Your task to perform on an android device: turn on priority inbox in the gmail app Image 0: 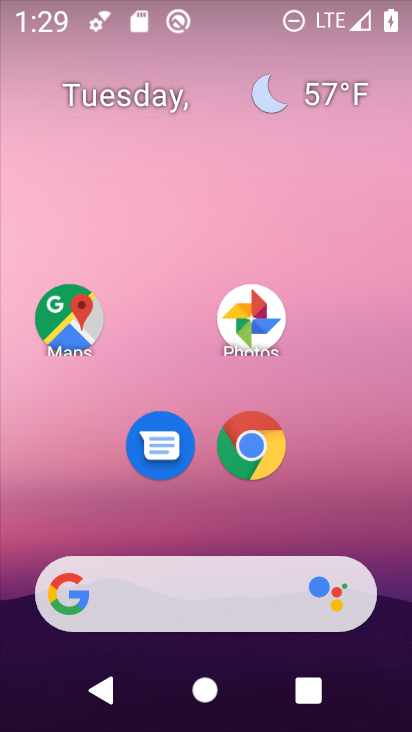
Step 0: drag from (391, 519) to (383, 216)
Your task to perform on an android device: turn on priority inbox in the gmail app Image 1: 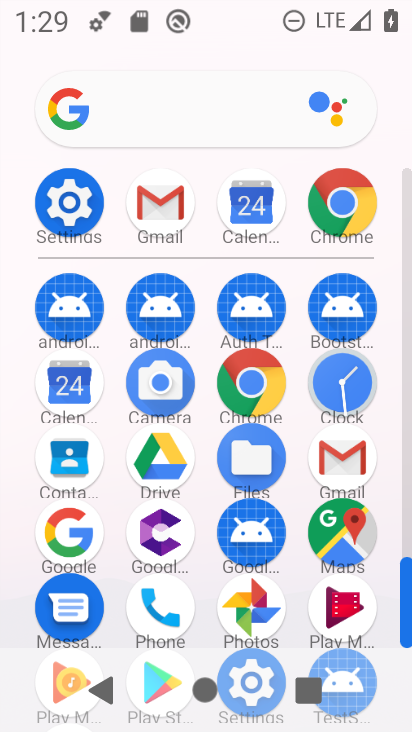
Step 1: click (362, 460)
Your task to perform on an android device: turn on priority inbox in the gmail app Image 2: 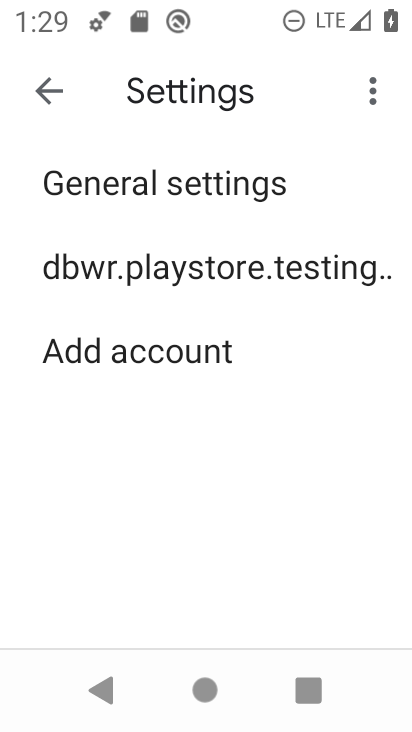
Step 2: click (336, 284)
Your task to perform on an android device: turn on priority inbox in the gmail app Image 3: 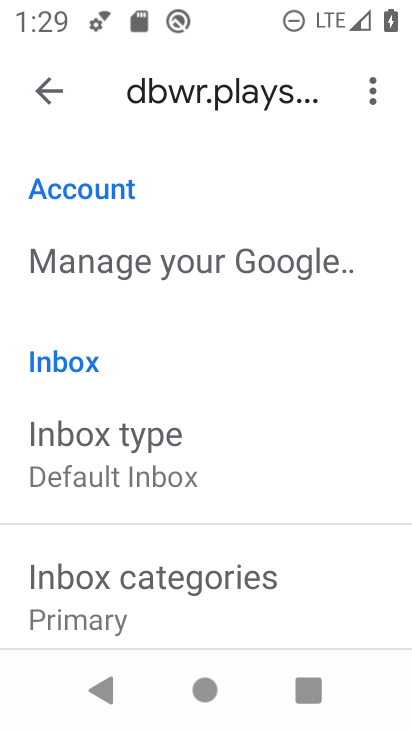
Step 3: drag from (363, 509) to (352, 423)
Your task to perform on an android device: turn on priority inbox in the gmail app Image 4: 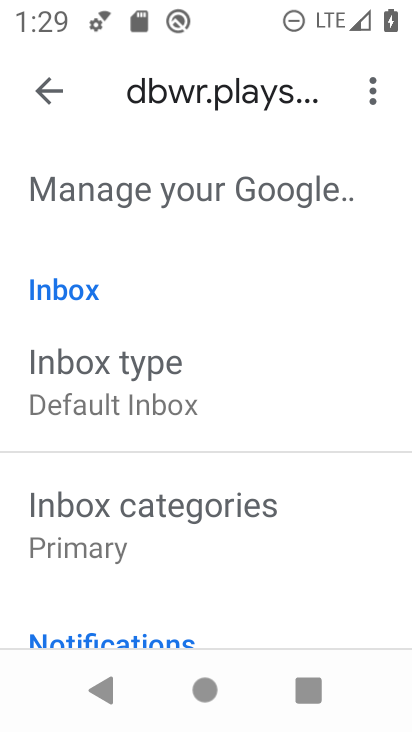
Step 4: drag from (344, 569) to (350, 476)
Your task to perform on an android device: turn on priority inbox in the gmail app Image 5: 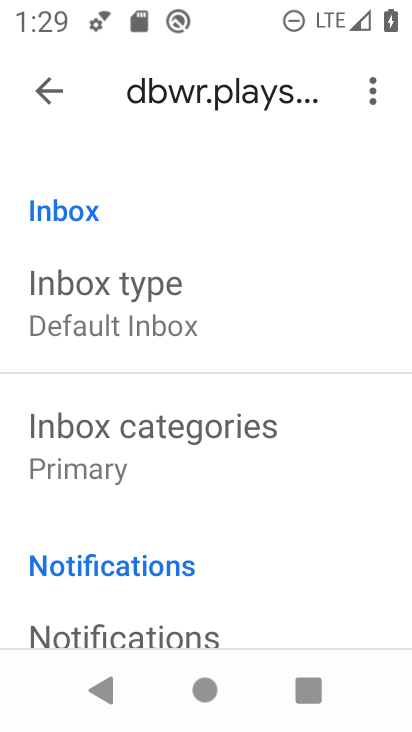
Step 5: drag from (348, 554) to (363, 426)
Your task to perform on an android device: turn on priority inbox in the gmail app Image 6: 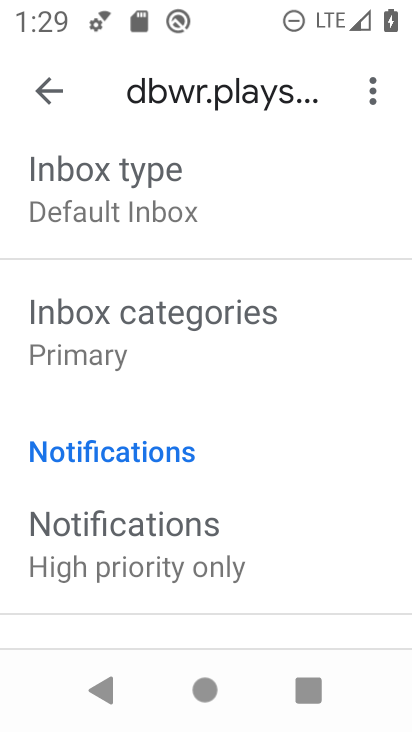
Step 6: drag from (368, 533) to (352, 415)
Your task to perform on an android device: turn on priority inbox in the gmail app Image 7: 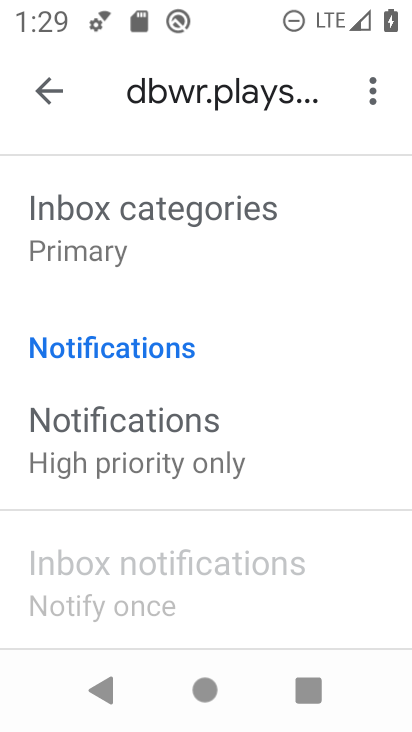
Step 7: drag from (340, 530) to (341, 401)
Your task to perform on an android device: turn on priority inbox in the gmail app Image 8: 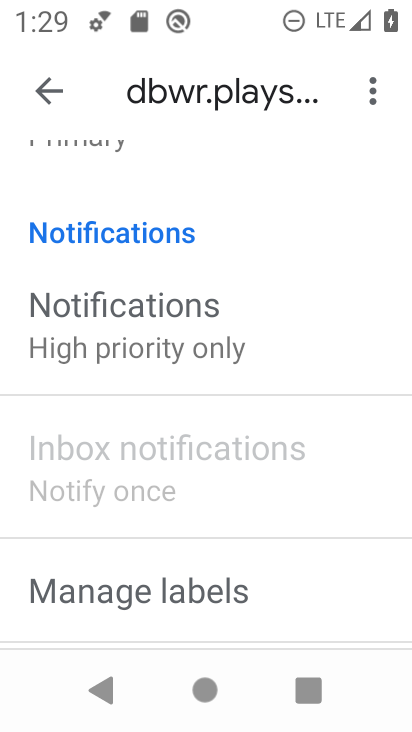
Step 8: drag from (326, 531) to (323, 393)
Your task to perform on an android device: turn on priority inbox in the gmail app Image 9: 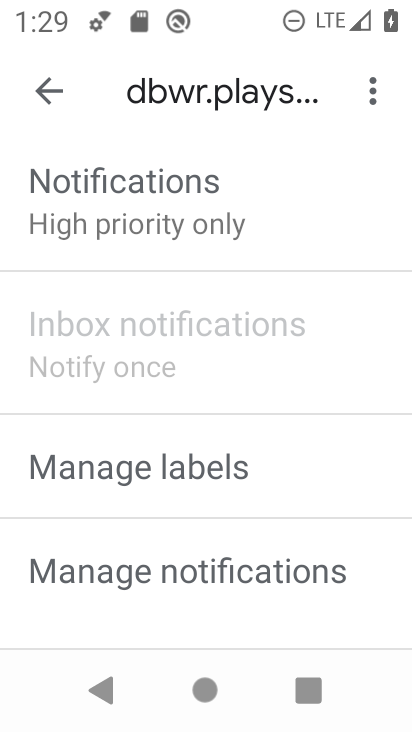
Step 9: drag from (371, 230) to (352, 343)
Your task to perform on an android device: turn on priority inbox in the gmail app Image 10: 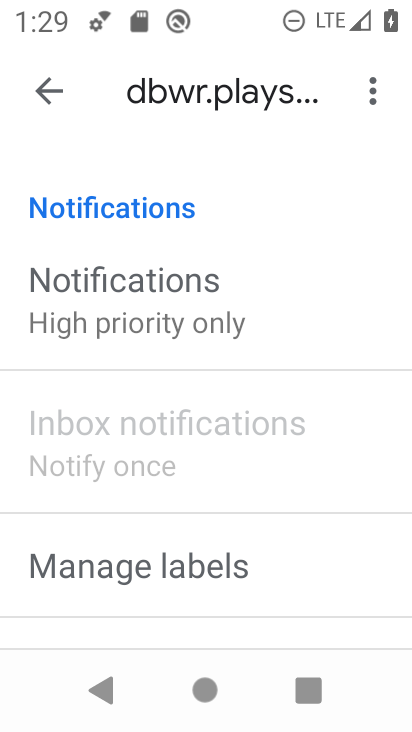
Step 10: drag from (343, 259) to (352, 371)
Your task to perform on an android device: turn on priority inbox in the gmail app Image 11: 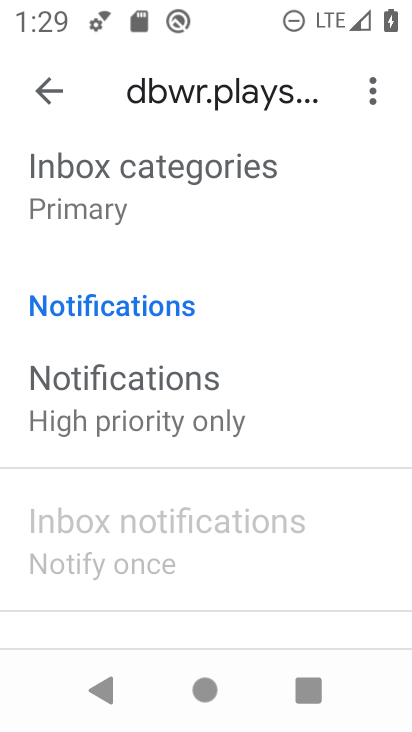
Step 11: drag from (326, 256) to (321, 370)
Your task to perform on an android device: turn on priority inbox in the gmail app Image 12: 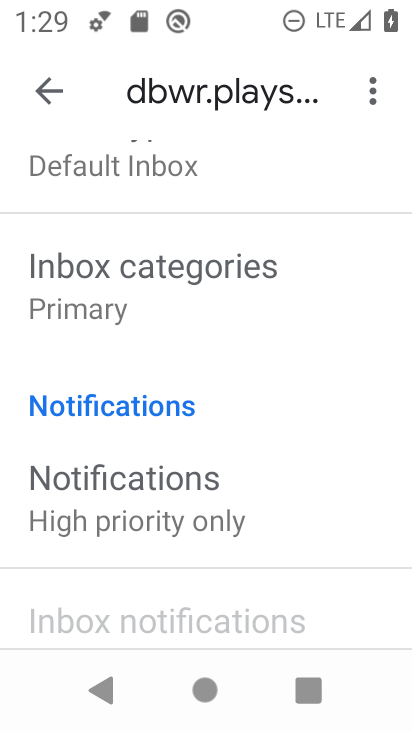
Step 12: drag from (335, 267) to (342, 378)
Your task to perform on an android device: turn on priority inbox in the gmail app Image 13: 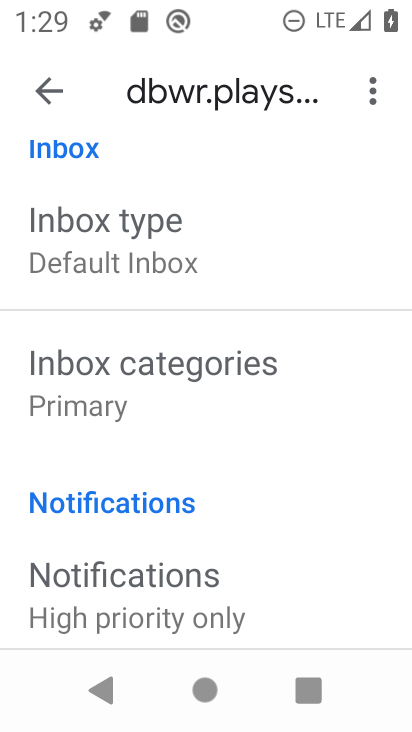
Step 13: drag from (336, 251) to (344, 389)
Your task to perform on an android device: turn on priority inbox in the gmail app Image 14: 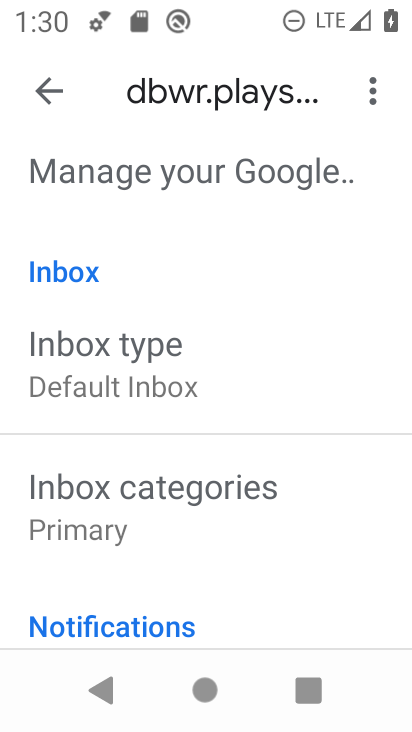
Step 14: click (176, 358)
Your task to perform on an android device: turn on priority inbox in the gmail app Image 15: 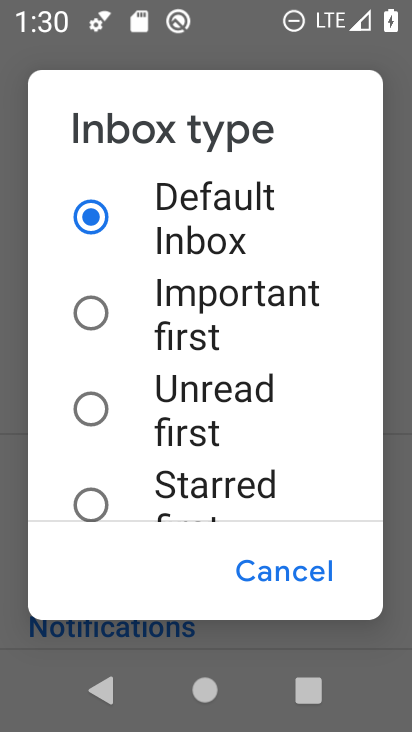
Step 15: drag from (340, 471) to (326, 253)
Your task to perform on an android device: turn on priority inbox in the gmail app Image 16: 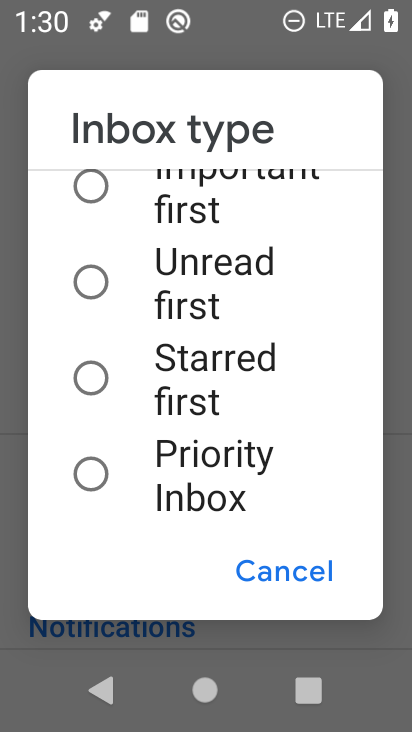
Step 16: click (101, 468)
Your task to perform on an android device: turn on priority inbox in the gmail app Image 17: 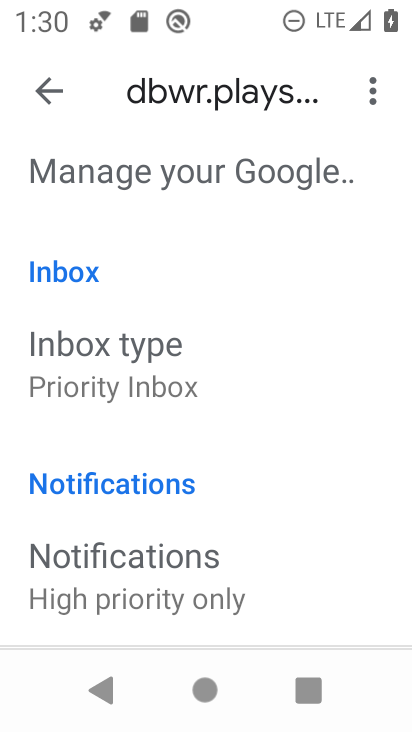
Step 17: task complete